Your task to perform on an android device: Open accessibility settings Image 0: 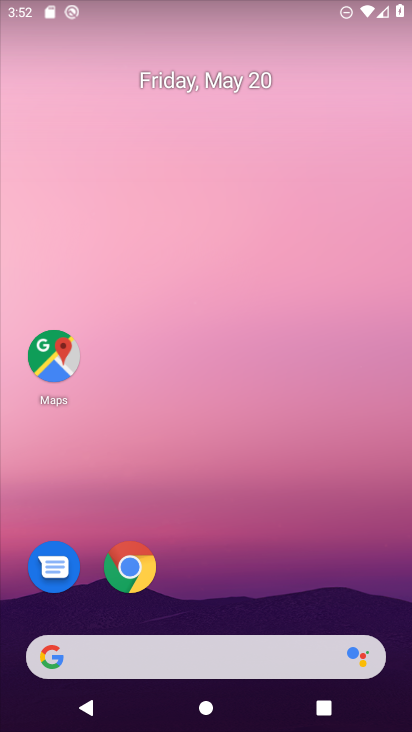
Step 0: drag from (223, 725) to (225, 211)
Your task to perform on an android device: Open accessibility settings Image 1: 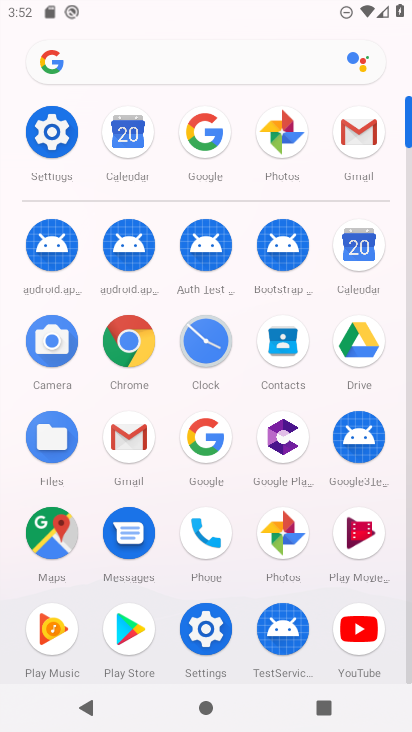
Step 1: click (43, 125)
Your task to perform on an android device: Open accessibility settings Image 2: 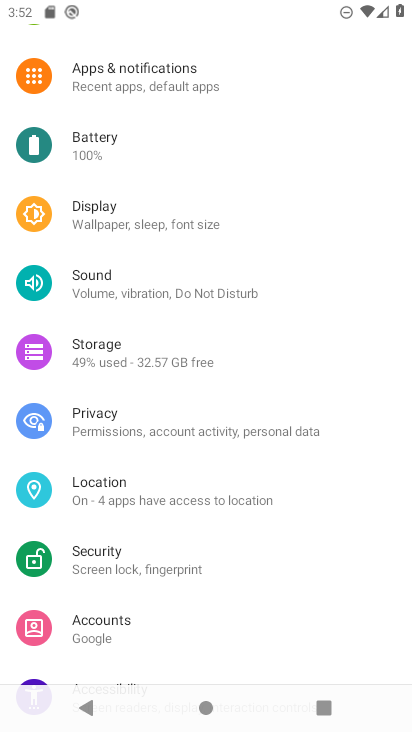
Step 2: drag from (166, 619) to (167, 290)
Your task to perform on an android device: Open accessibility settings Image 3: 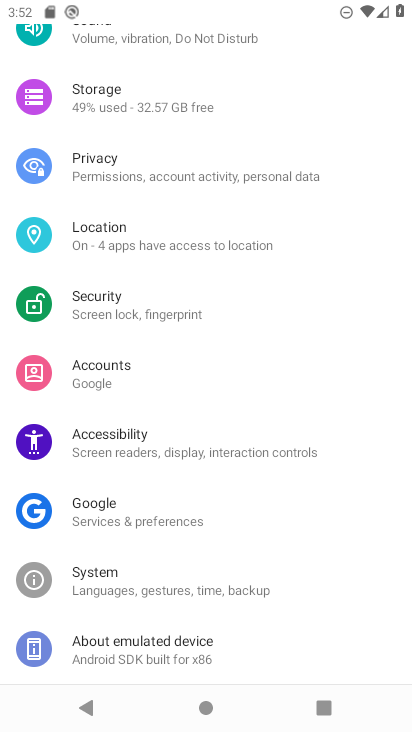
Step 3: click (139, 442)
Your task to perform on an android device: Open accessibility settings Image 4: 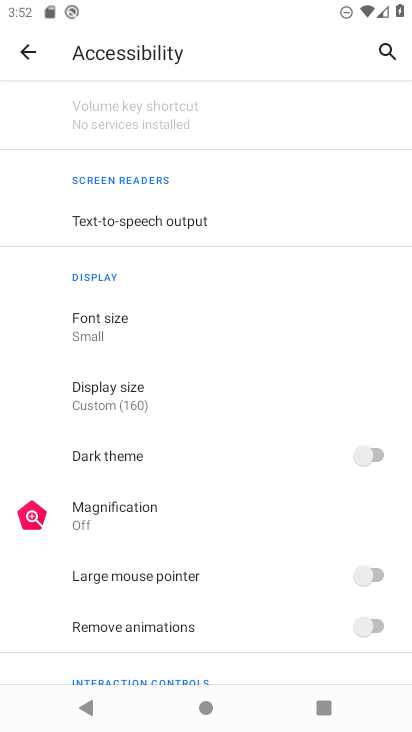
Step 4: task complete